Your task to perform on an android device: change your default location settings in chrome Image 0: 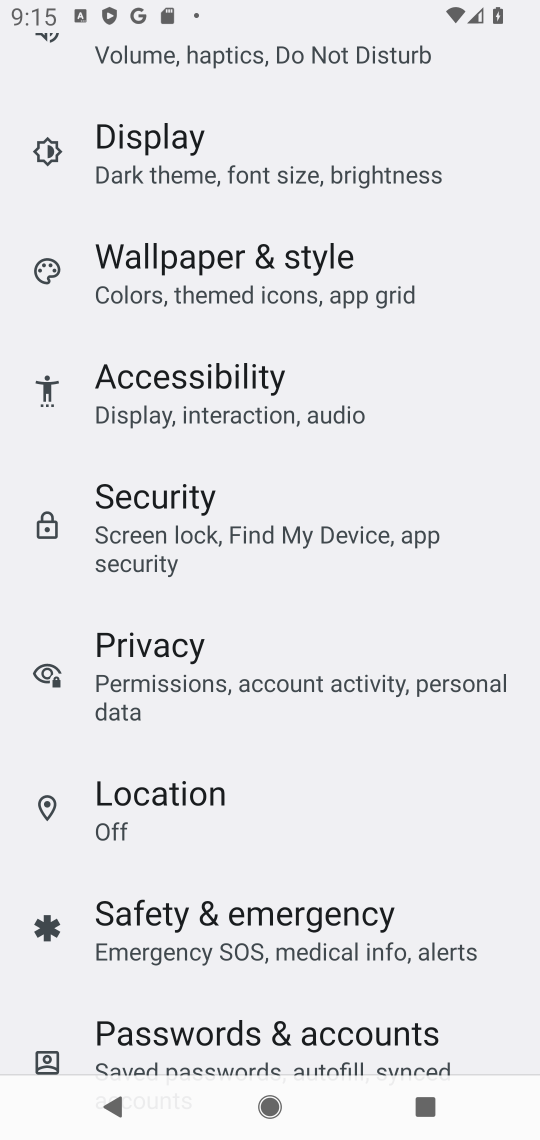
Step 0: press home button
Your task to perform on an android device: change your default location settings in chrome Image 1: 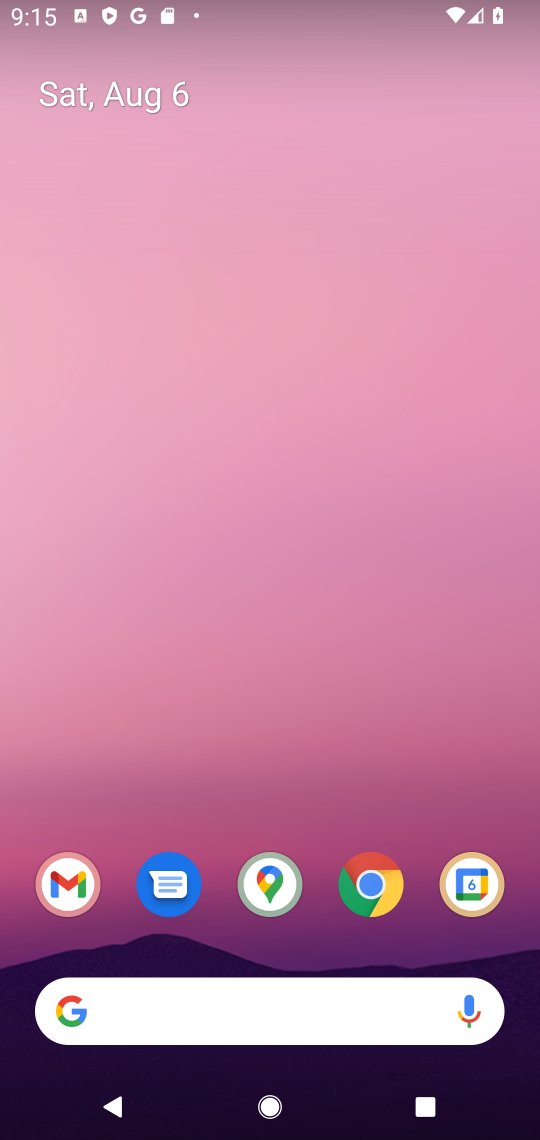
Step 1: click (372, 881)
Your task to perform on an android device: change your default location settings in chrome Image 2: 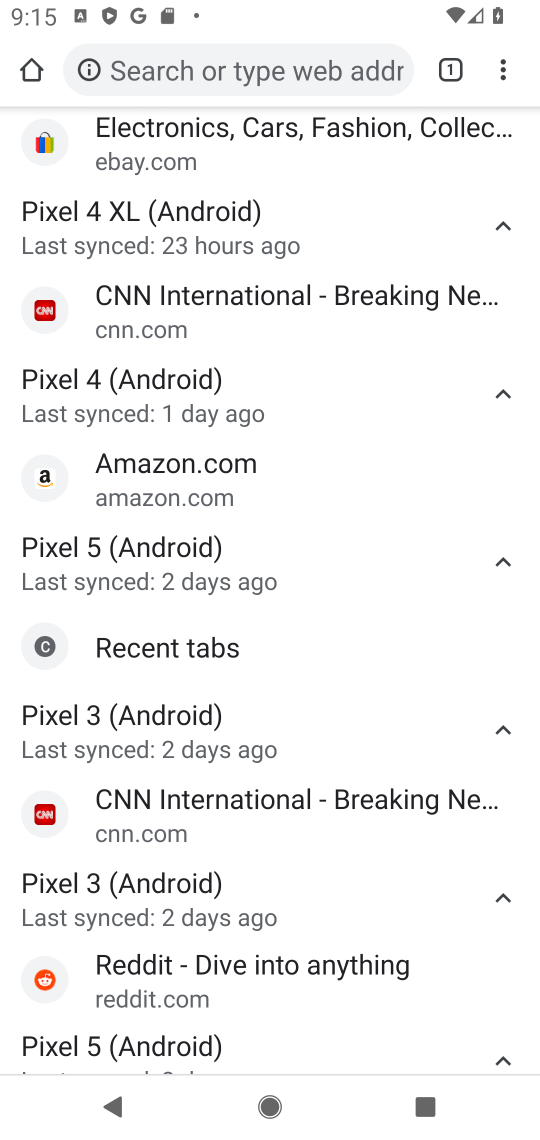
Step 2: click (494, 73)
Your task to perform on an android device: change your default location settings in chrome Image 3: 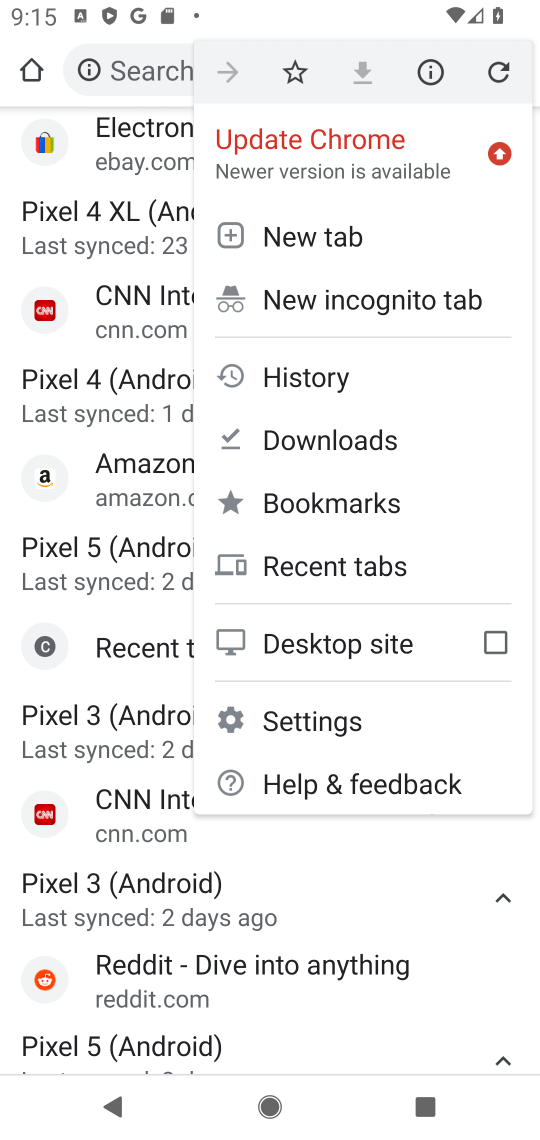
Step 3: click (321, 720)
Your task to perform on an android device: change your default location settings in chrome Image 4: 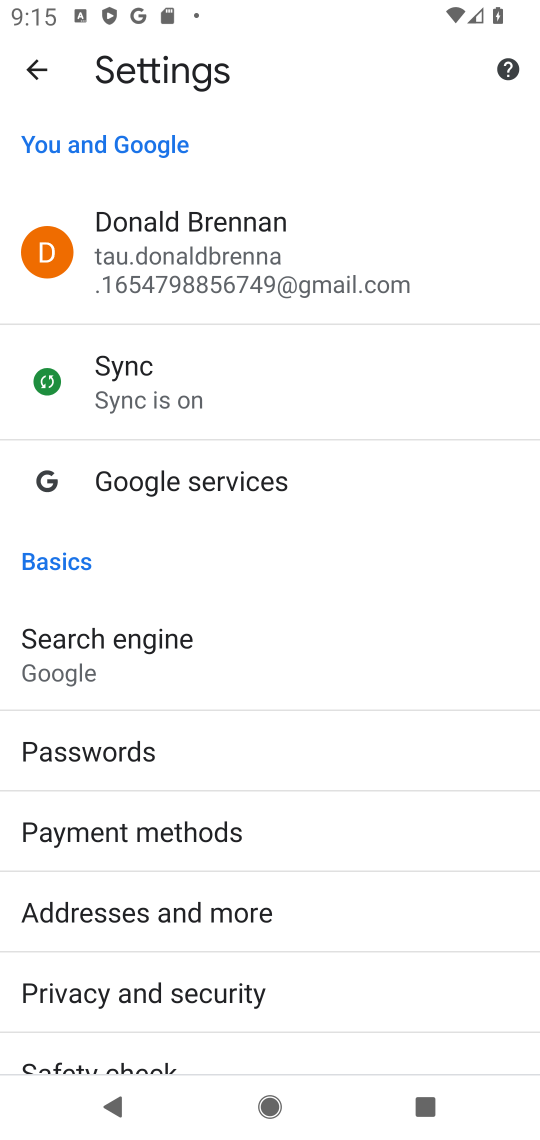
Step 4: drag from (325, 975) to (340, 362)
Your task to perform on an android device: change your default location settings in chrome Image 5: 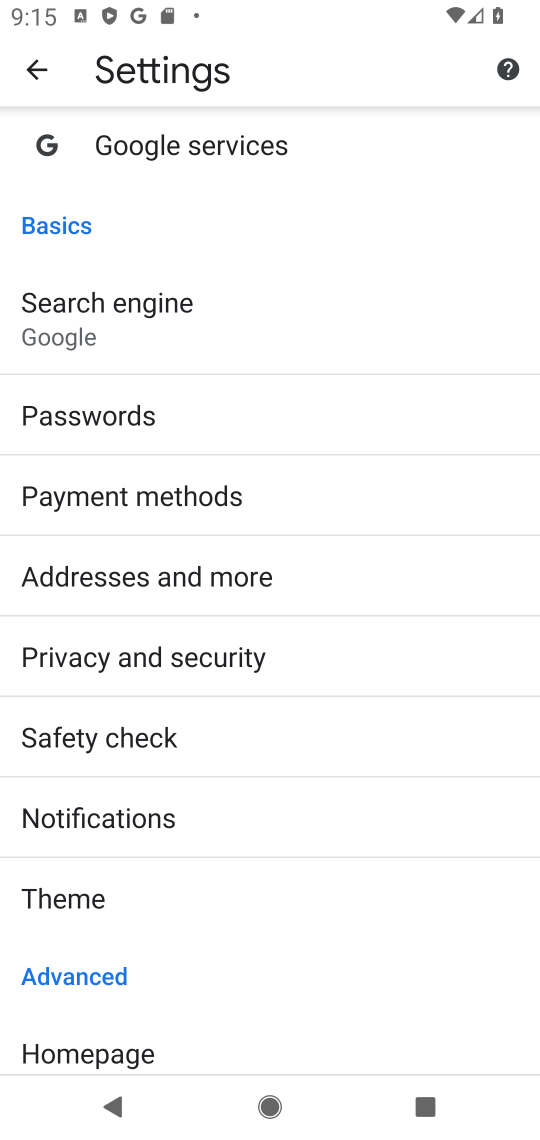
Step 5: drag from (283, 978) to (319, 342)
Your task to perform on an android device: change your default location settings in chrome Image 6: 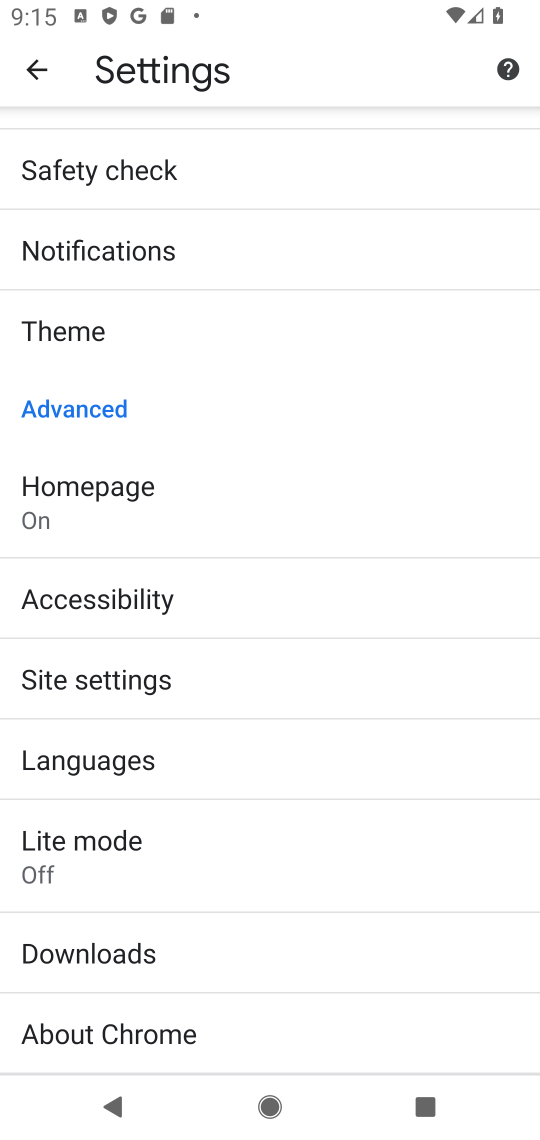
Step 6: click (94, 688)
Your task to perform on an android device: change your default location settings in chrome Image 7: 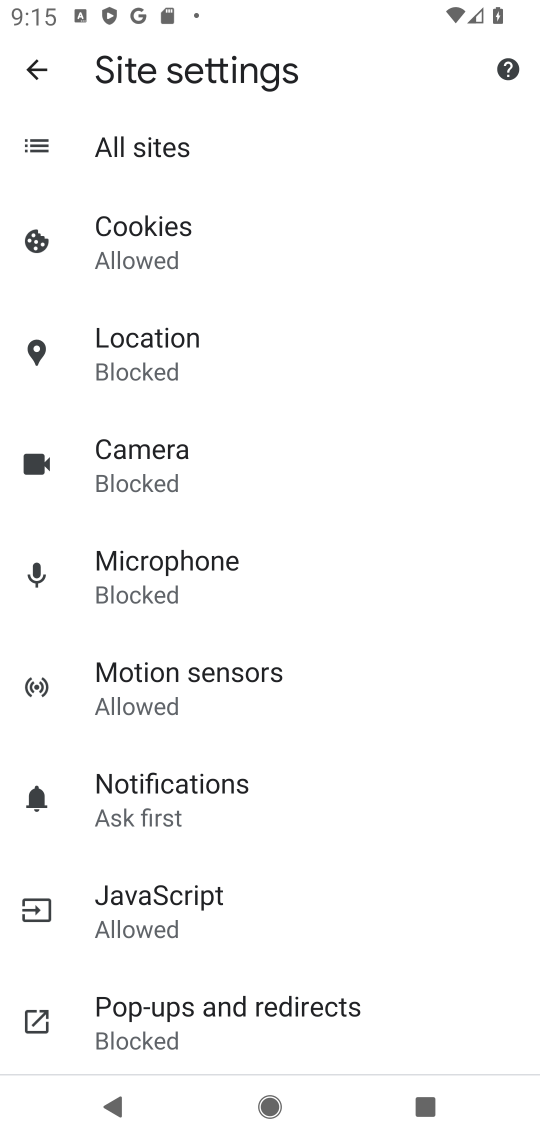
Step 7: click (135, 337)
Your task to perform on an android device: change your default location settings in chrome Image 8: 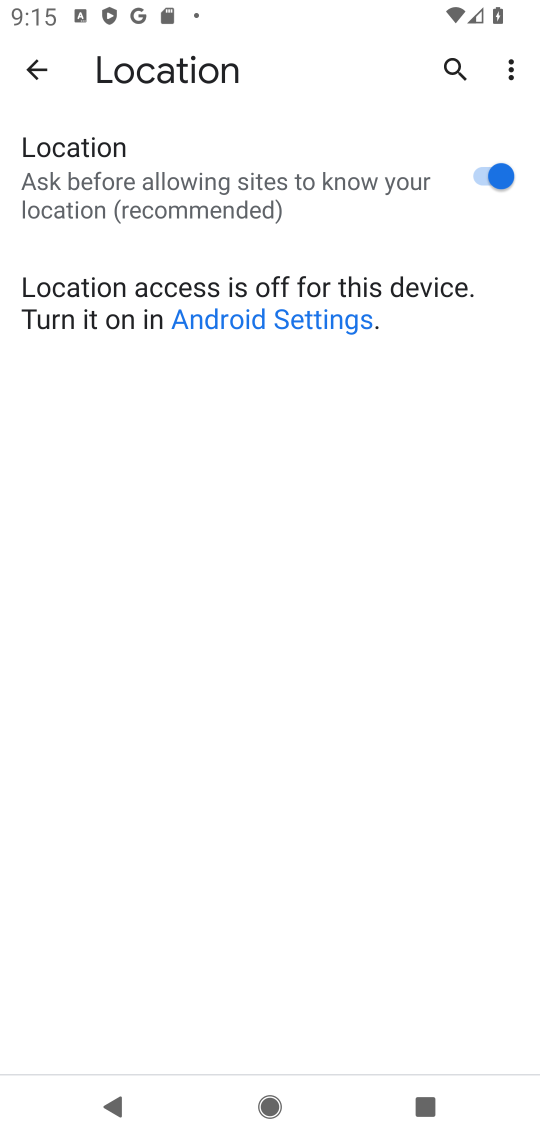
Step 8: click (472, 175)
Your task to perform on an android device: change your default location settings in chrome Image 9: 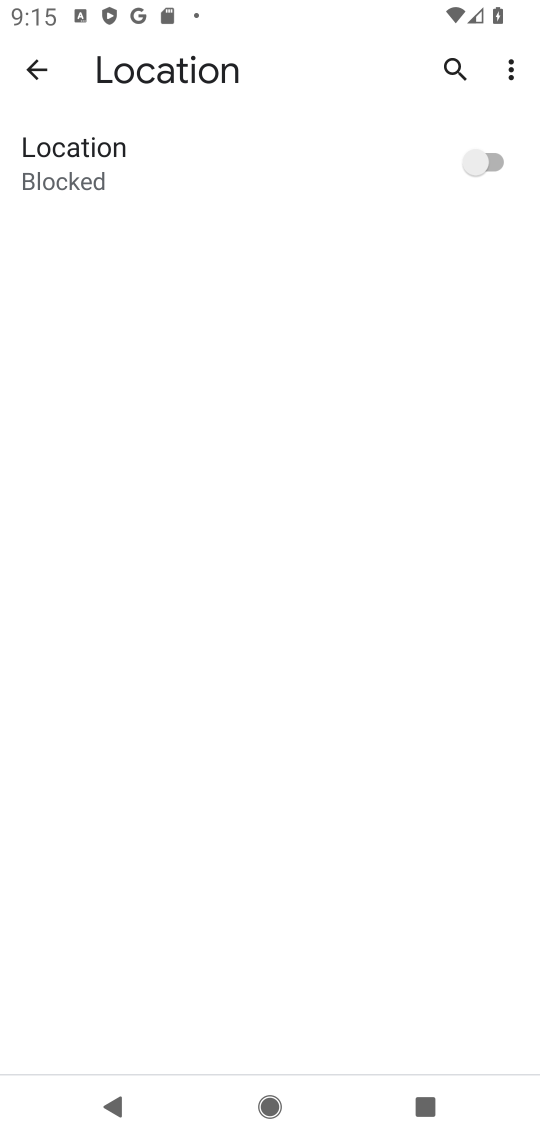
Step 9: task complete